Your task to perform on an android device: Open Android settings Image 0: 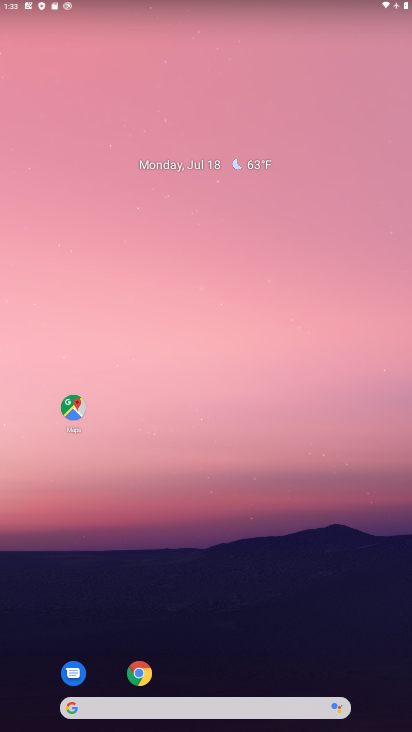
Step 0: drag from (300, 592) to (315, 377)
Your task to perform on an android device: Open Android settings Image 1: 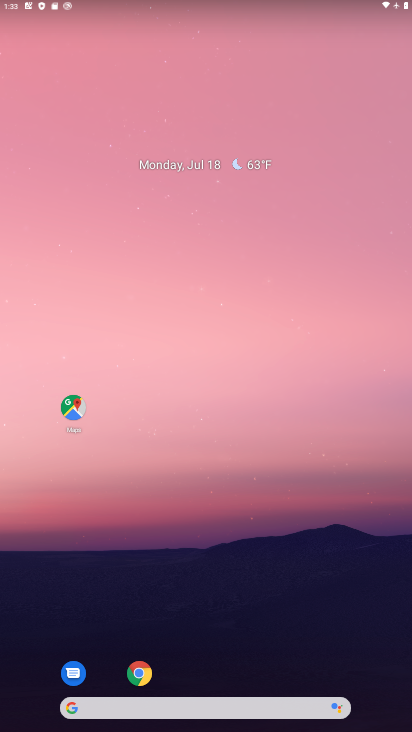
Step 1: drag from (185, 648) to (218, 368)
Your task to perform on an android device: Open Android settings Image 2: 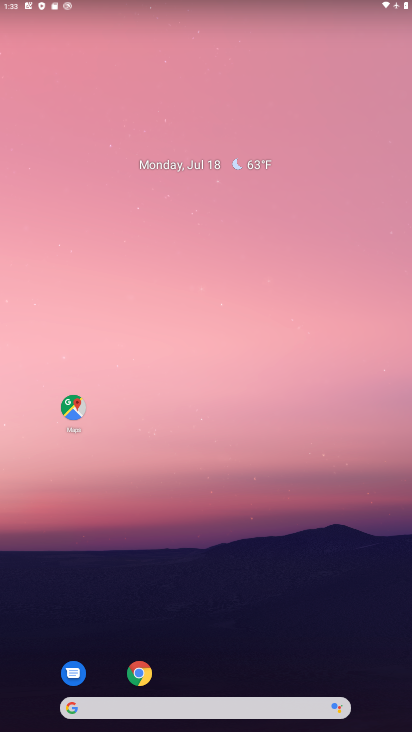
Step 2: drag from (190, 681) to (190, 555)
Your task to perform on an android device: Open Android settings Image 3: 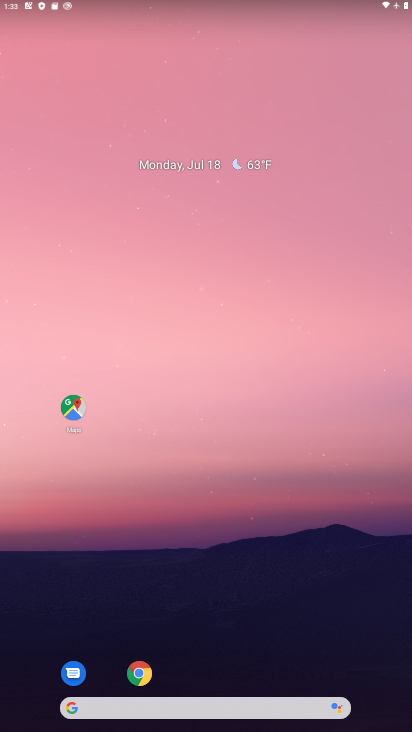
Step 3: drag from (214, 649) to (227, 170)
Your task to perform on an android device: Open Android settings Image 4: 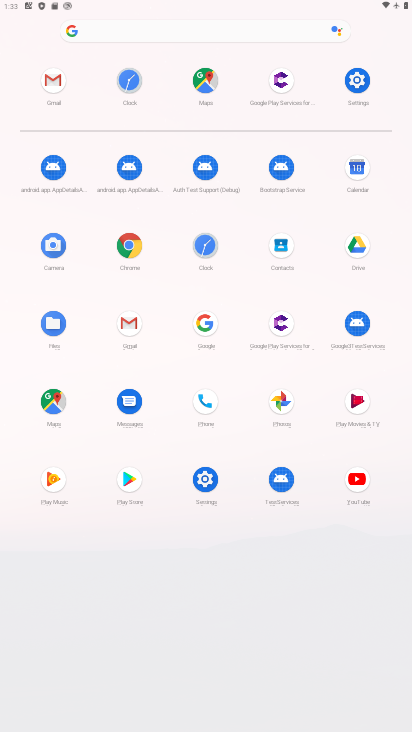
Step 4: click (363, 92)
Your task to perform on an android device: Open Android settings Image 5: 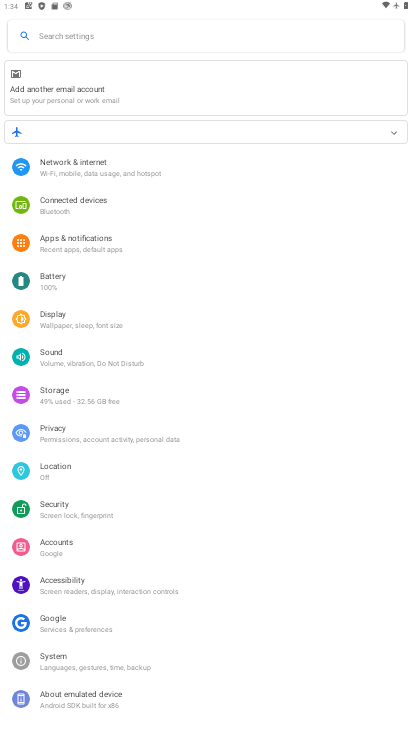
Step 5: task complete